Your task to perform on an android device: Open calendar and show me the second week of next month Image 0: 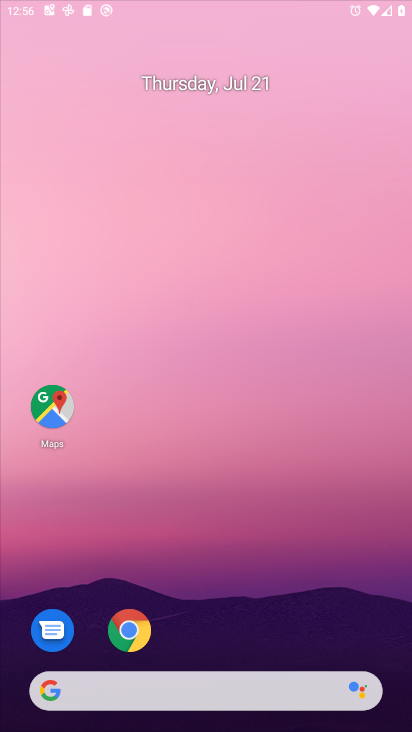
Step 0: press home button
Your task to perform on an android device: Open calendar and show me the second week of next month Image 1: 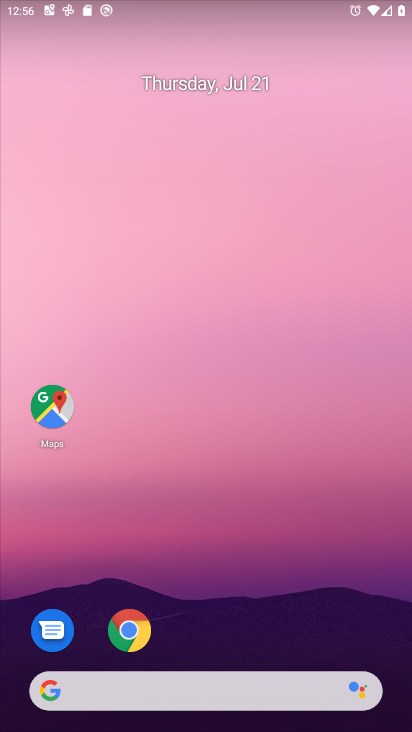
Step 1: drag from (208, 614) to (272, 68)
Your task to perform on an android device: Open calendar and show me the second week of next month Image 2: 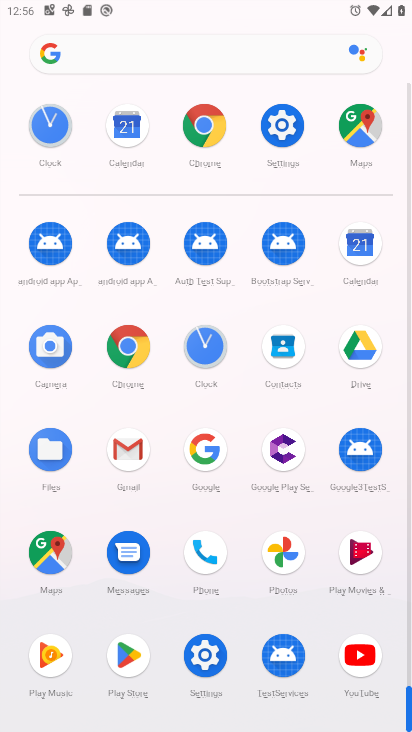
Step 2: click (359, 249)
Your task to perform on an android device: Open calendar and show me the second week of next month Image 3: 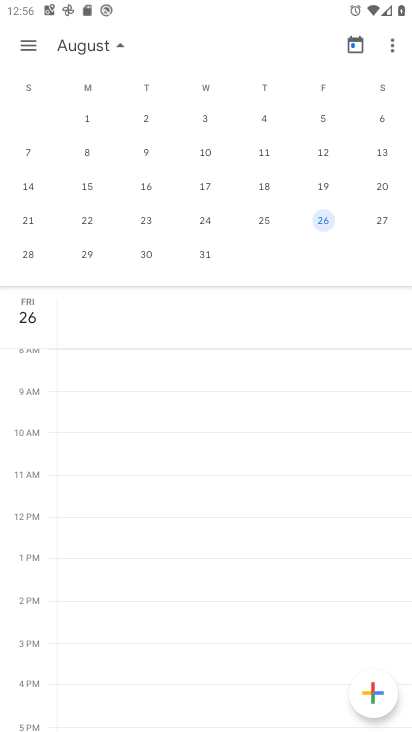
Step 3: drag from (94, 148) to (411, 171)
Your task to perform on an android device: Open calendar and show me the second week of next month Image 4: 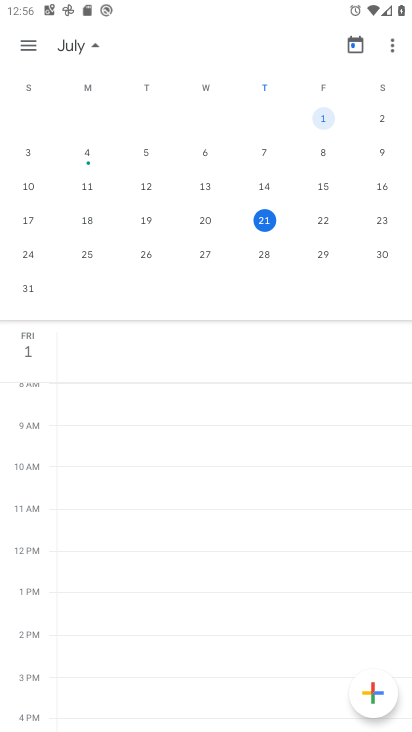
Step 4: drag from (367, 206) to (0, 195)
Your task to perform on an android device: Open calendar and show me the second week of next month Image 5: 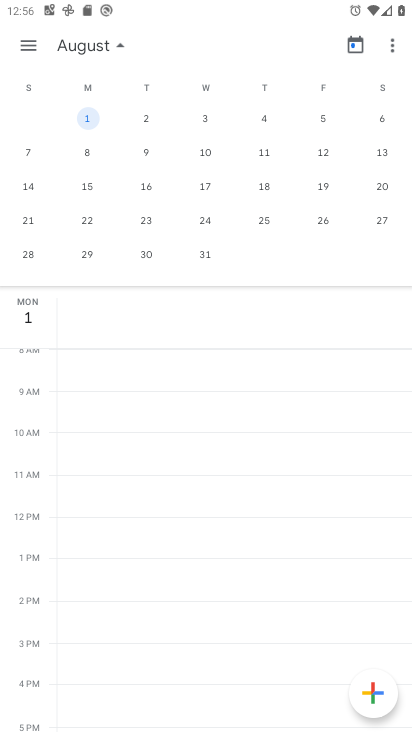
Step 5: click (263, 152)
Your task to perform on an android device: Open calendar and show me the second week of next month Image 6: 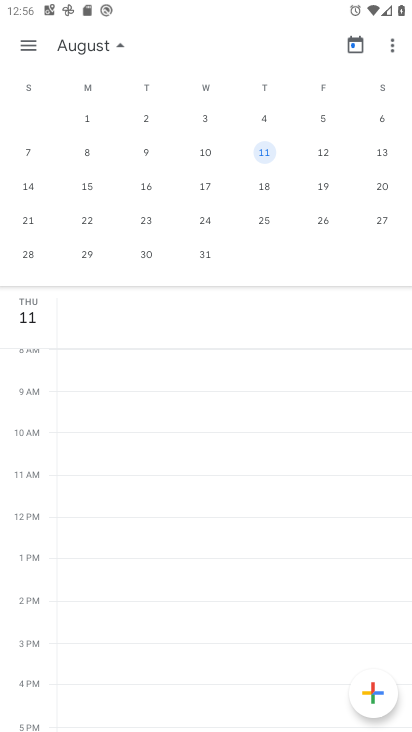
Step 6: task complete